Your task to perform on an android device: open wifi settings Image 0: 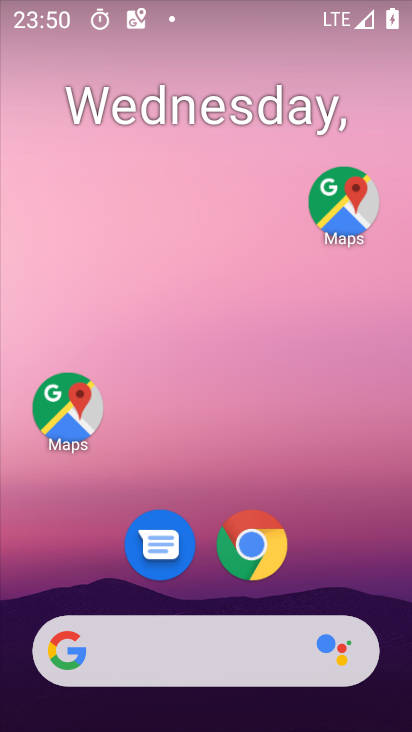
Step 0: drag from (315, 589) to (137, 5)
Your task to perform on an android device: open wifi settings Image 1: 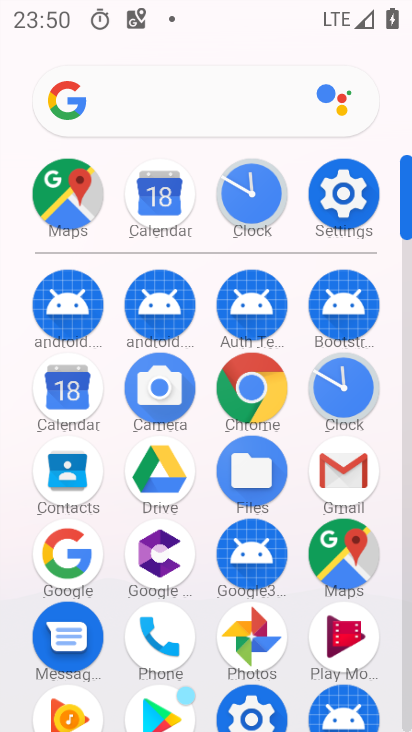
Step 1: click (341, 169)
Your task to perform on an android device: open wifi settings Image 2: 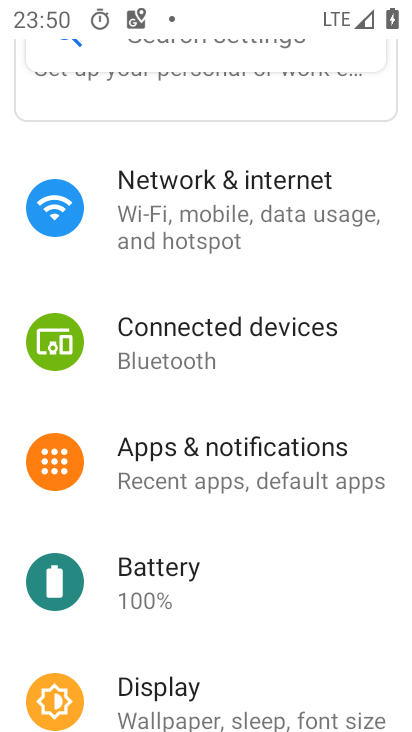
Step 2: click (159, 225)
Your task to perform on an android device: open wifi settings Image 3: 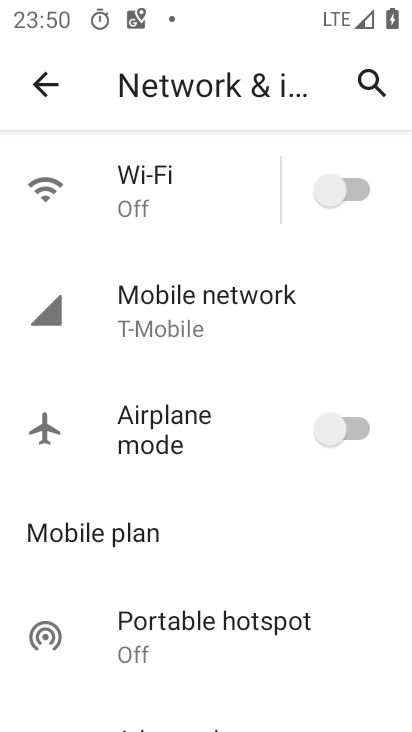
Step 3: click (113, 206)
Your task to perform on an android device: open wifi settings Image 4: 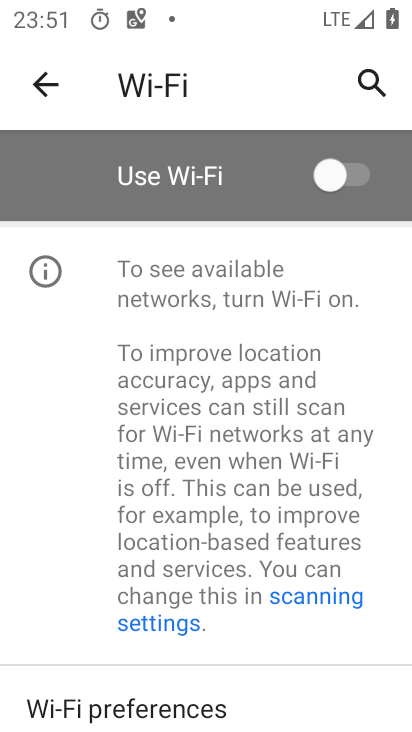
Step 4: task complete